Your task to perform on an android device: toggle sleep mode Image 0: 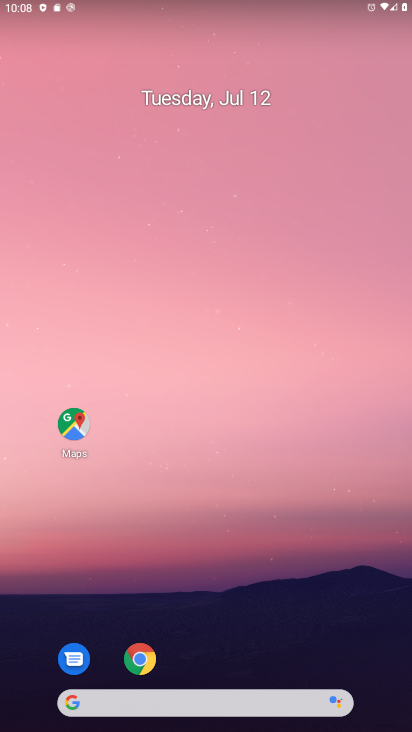
Step 0: drag from (203, 692) to (200, 256)
Your task to perform on an android device: toggle sleep mode Image 1: 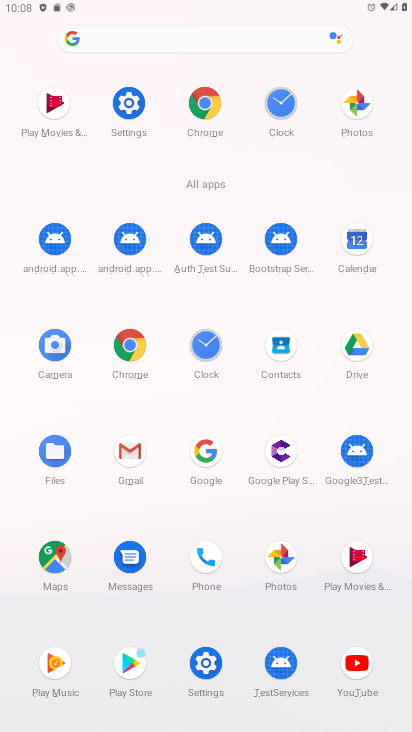
Step 1: click (126, 108)
Your task to perform on an android device: toggle sleep mode Image 2: 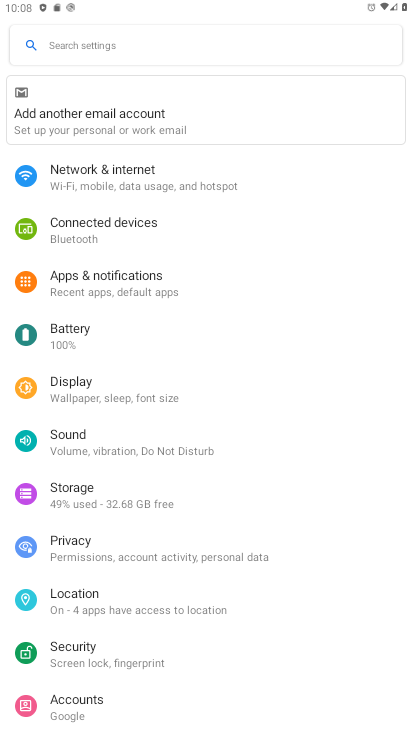
Step 2: drag from (119, 686) to (105, 148)
Your task to perform on an android device: toggle sleep mode Image 3: 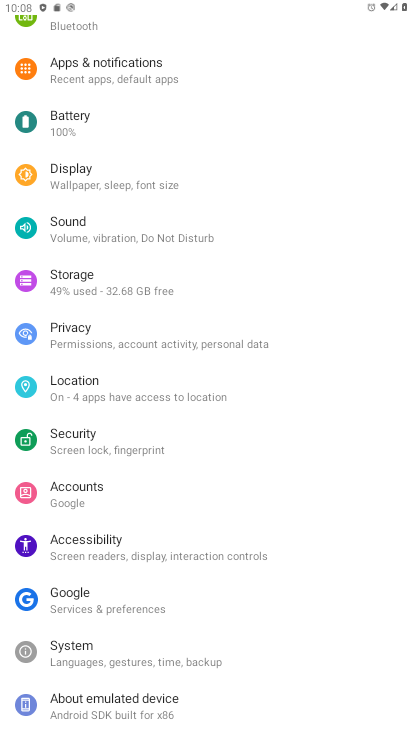
Step 3: click (76, 178)
Your task to perform on an android device: toggle sleep mode Image 4: 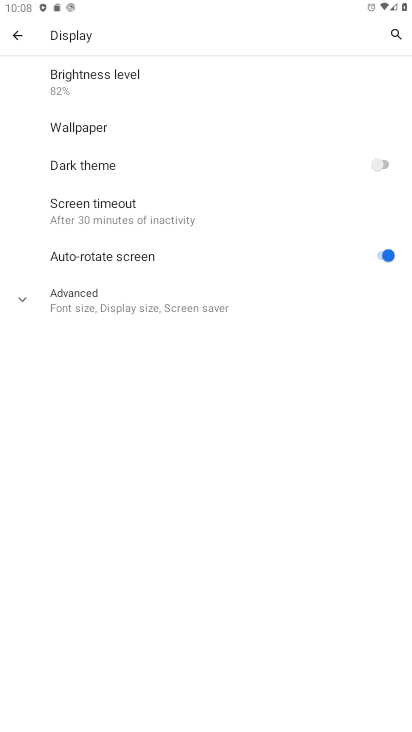
Step 4: click (119, 308)
Your task to perform on an android device: toggle sleep mode Image 5: 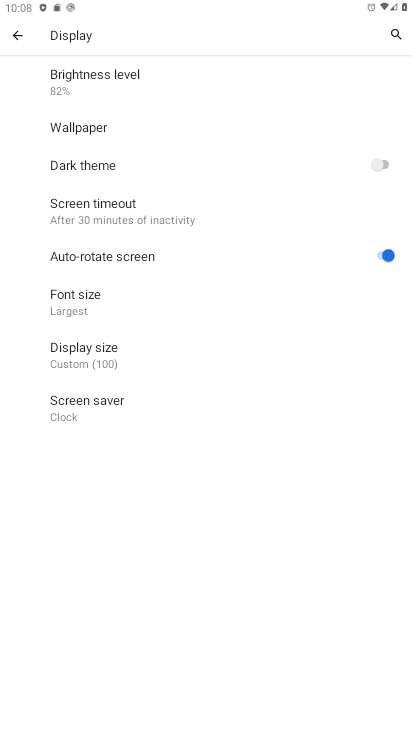
Step 5: task complete